Your task to perform on an android device: Go to Reddit.com Image 0: 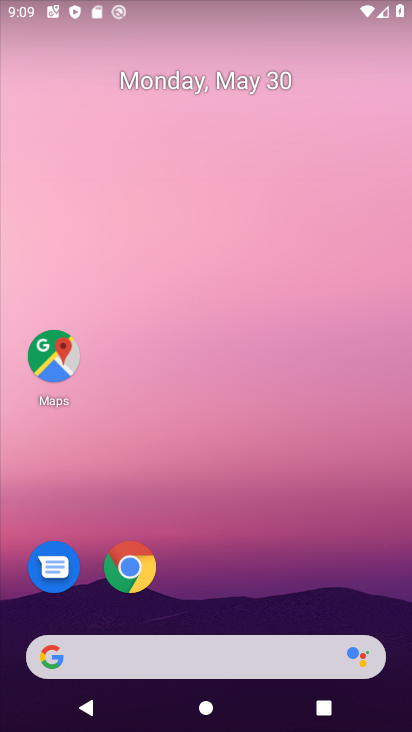
Step 0: drag from (211, 615) to (247, 101)
Your task to perform on an android device: Go to Reddit.com Image 1: 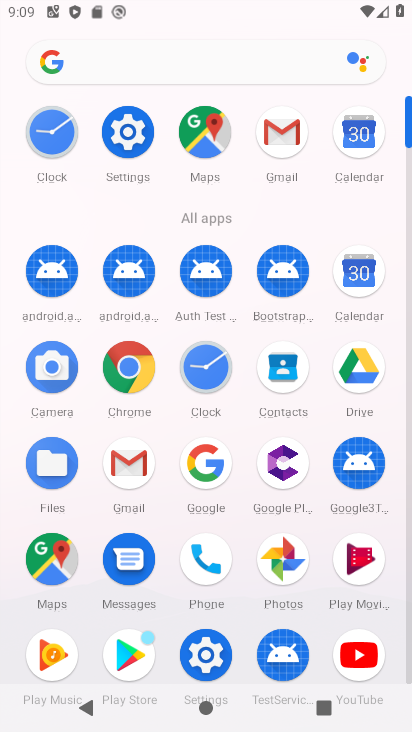
Step 1: click (202, 464)
Your task to perform on an android device: Go to Reddit.com Image 2: 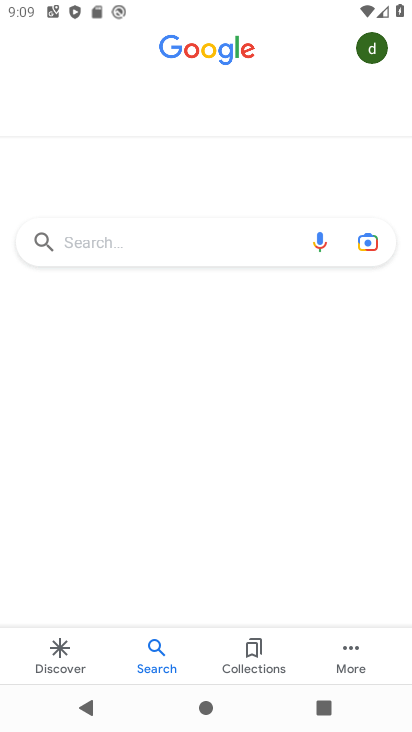
Step 2: click (109, 249)
Your task to perform on an android device: Go to Reddit.com Image 3: 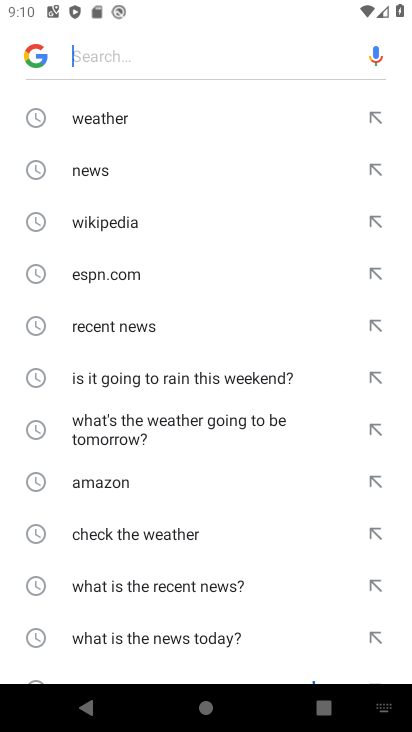
Step 3: type "reddit"
Your task to perform on an android device: Go to Reddit.com Image 4: 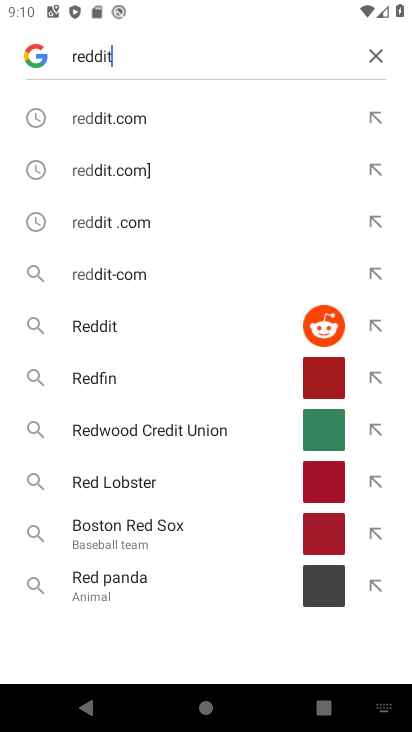
Step 4: type ""
Your task to perform on an android device: Go to Reddit.com Image 5: 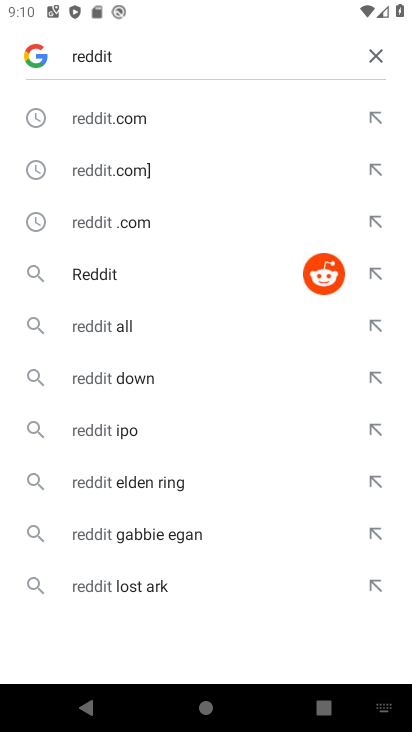
Step 5: click (131, 121)
Your task to perform on an android device: Go to Reddit.com Image 6: 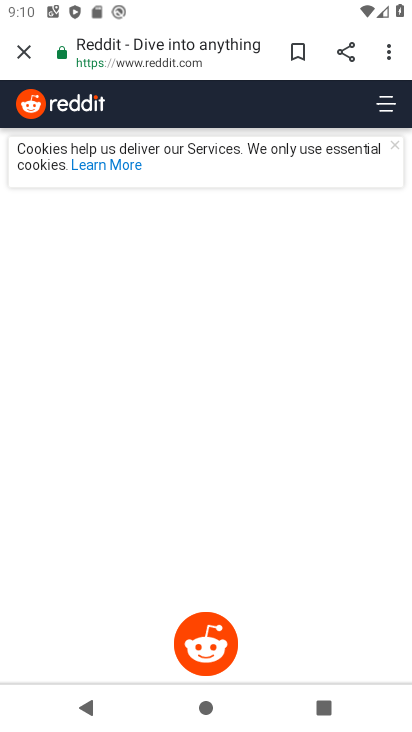
Step 6: task complete